Your task to perform on an android device: Go to Google Image 0: 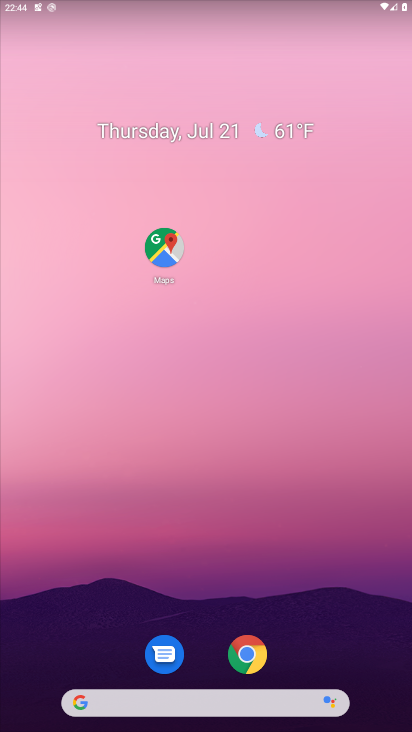
Step 0: click (125, 700)
Your task to perform on an android device: Go to Google Image 1: 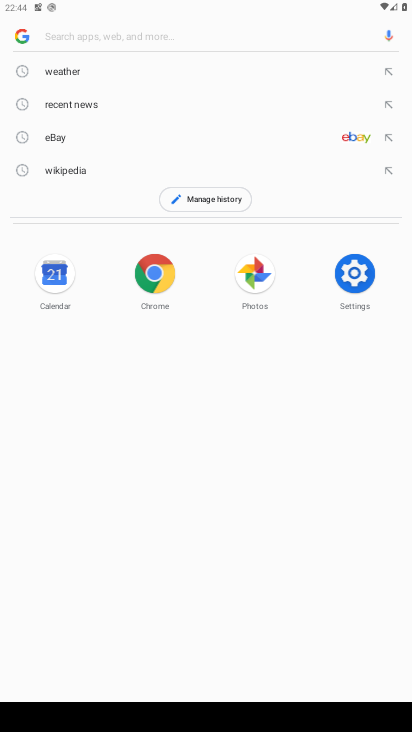
Step 1: task complete